Your task to perform on an android device: Open Wikipedia Image 0: 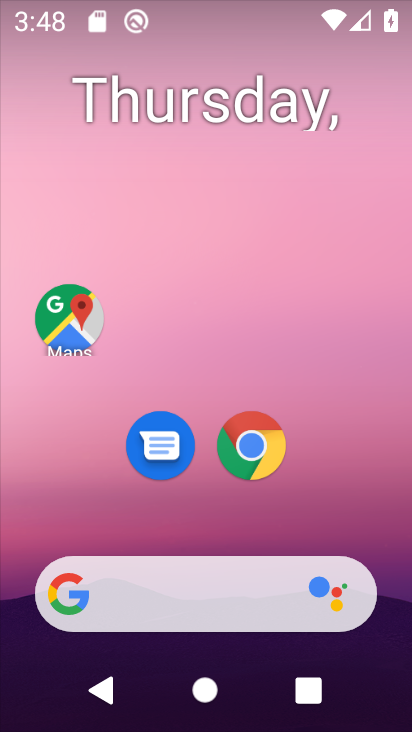
Step 0: click (255, 442)
Your task to perform on an android device: Open Wikipedia Image 1: 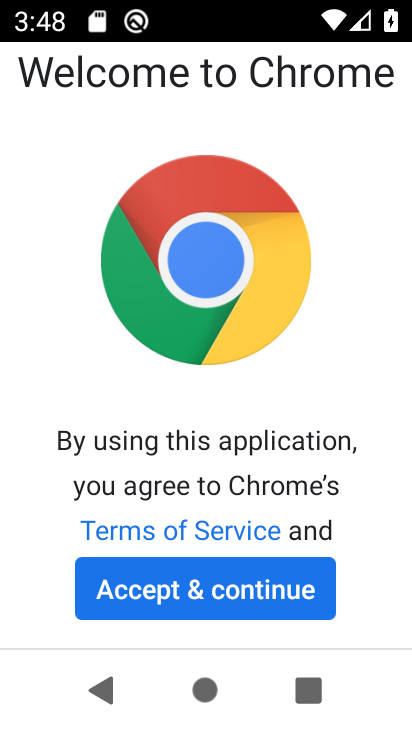
Step 1: click (226, 593)
Your task to perform on an android device: Open Wikipedia Image 2: 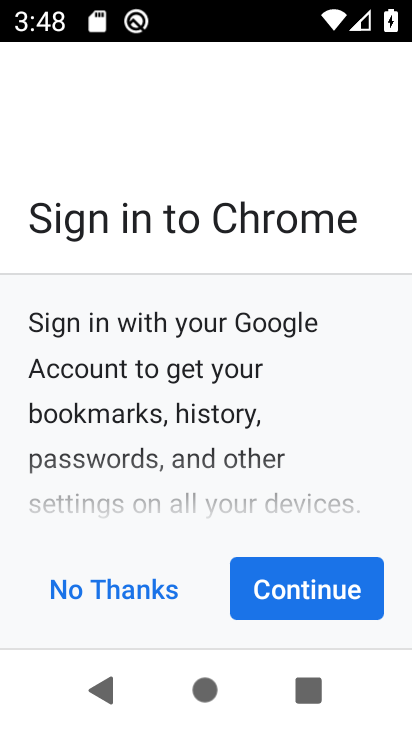
Step 2: click (131, 608)
Your task to perform on an android device: Open Wikipedia Image 3: 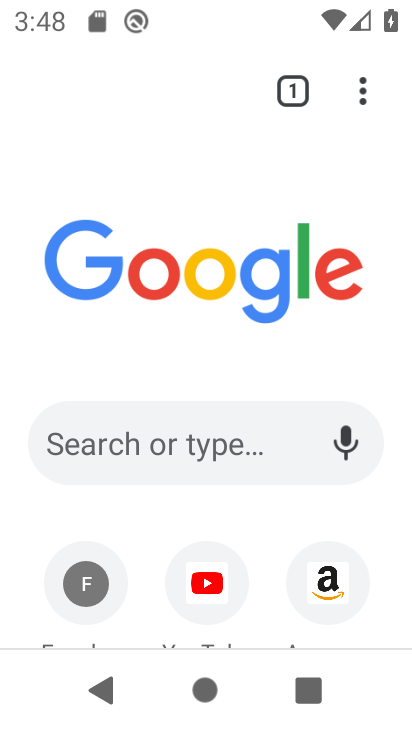
Step 3: drag from (394, 594) to (402, 231)
Your task to perform on an android device: Open Wikipedia Image 4: 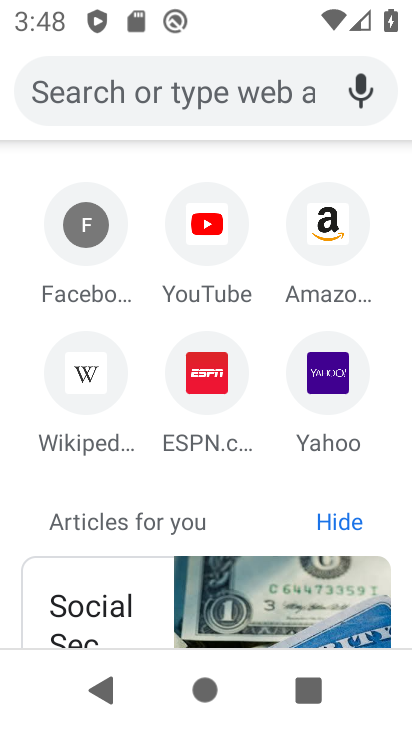
Step 4: click (51, 389)
Your task to perform on an android device: Open Wikipedia Image 5: 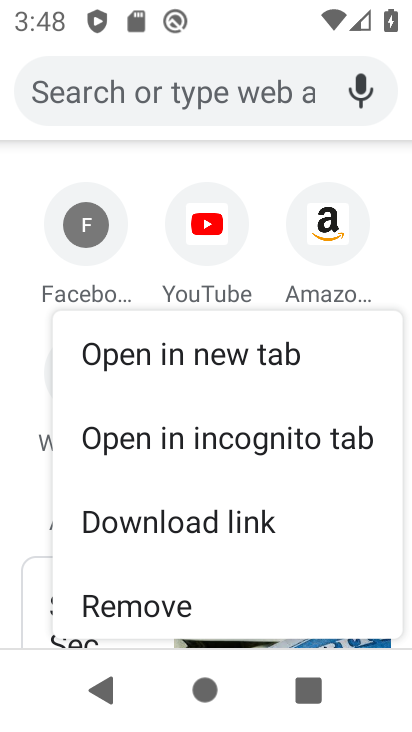
Step 5: click (0, 411)
Your task to perform on an android device: Open Wikipedia Image 6: 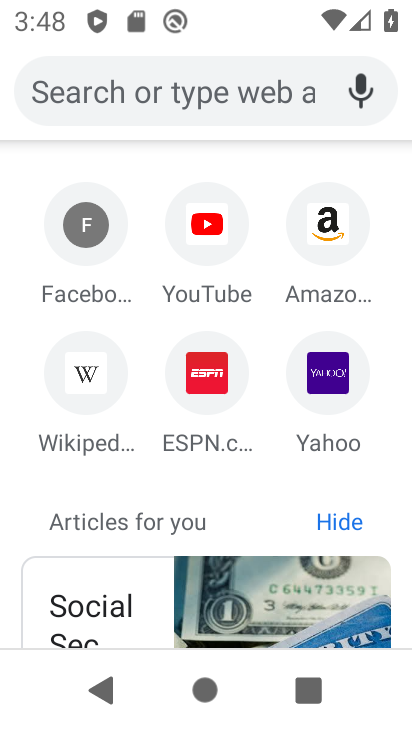
Step 6: click (78, 379)
Your task to perform on an android device: Open Wikipedia Image 7: 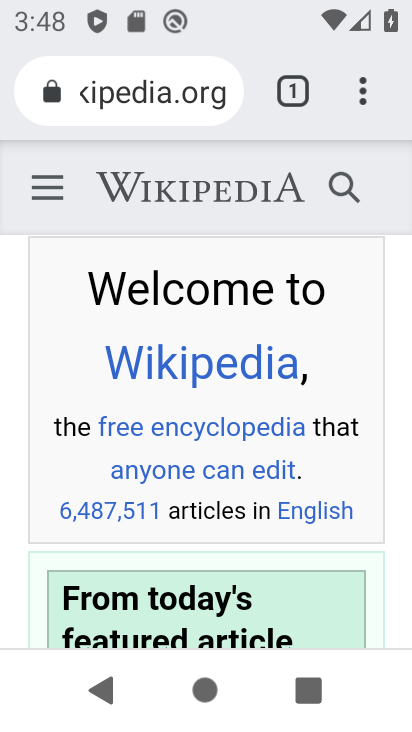
Step 7: task complete